Your task to perform on an android device: Is it going to rain tomorrow? Image 0: 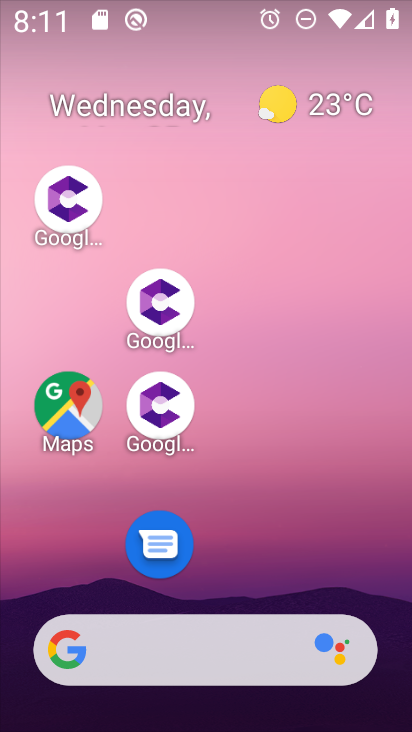
Step 0: click (211, 636)
Your task to perform on an android device: Is it going to rain tomorrow? Image 1: 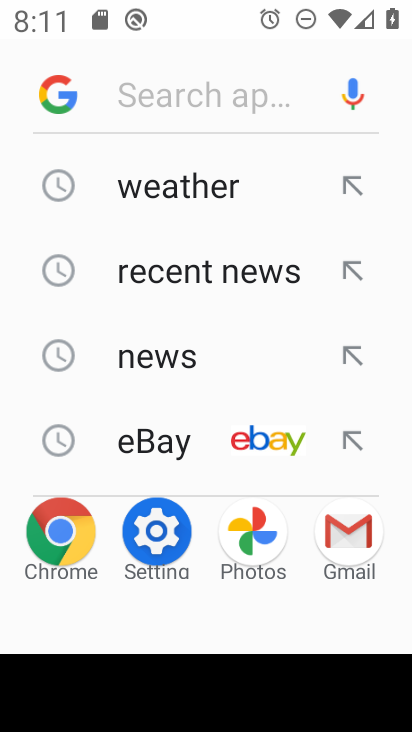
Step 1: click (171, 182)
Your task to perform on an android device: Is it going to rain tomorrow? Image 2: 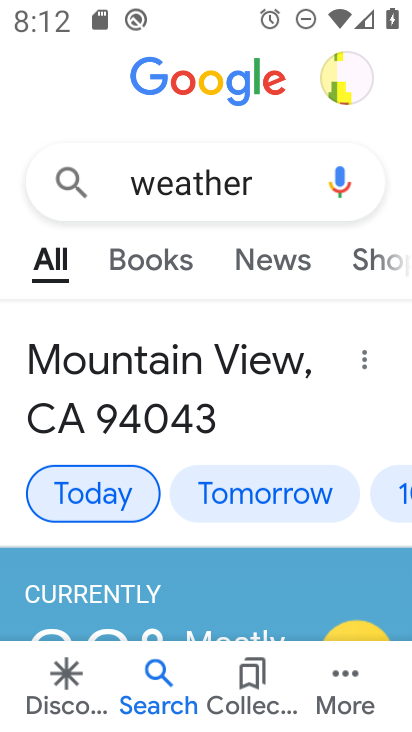
Step 2: task complete